Your task to perform on an android device: Go to calendar. Show me events next week Image 0: 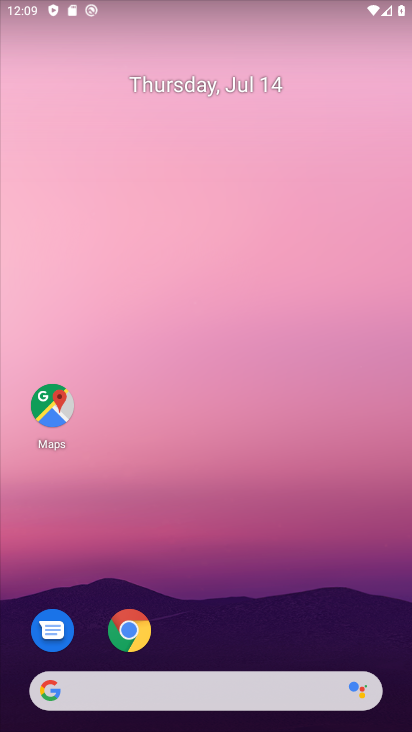
Step 0: drag from (190, 589) to (188, 402)
Your task to perform on an android device: Go to calendar. Show me events next week Image 1: 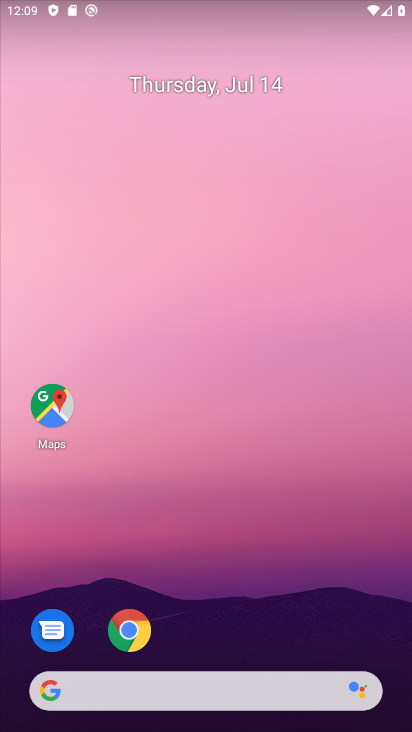
Step 1: drag from (236, 669) to (258, 281)
Your task to perform on an android device: Go to calendar. Show me events next week Image 2: 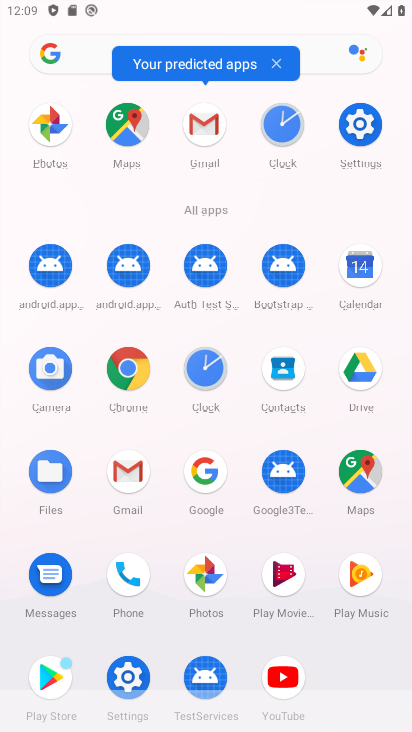
Step 2: click (360, 273)
Your task to perform on an android device: Go to calendar. Show me events next week Image 3: 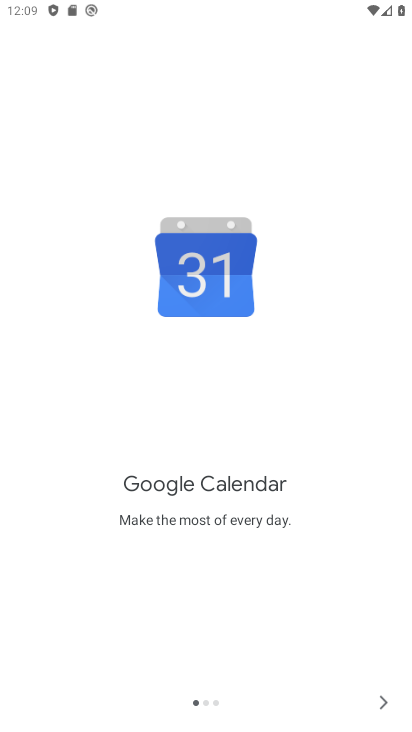
Step 3: click (385, 704)
Your task to perform on an android device: Go to calendar. Show me events next week Image 4: 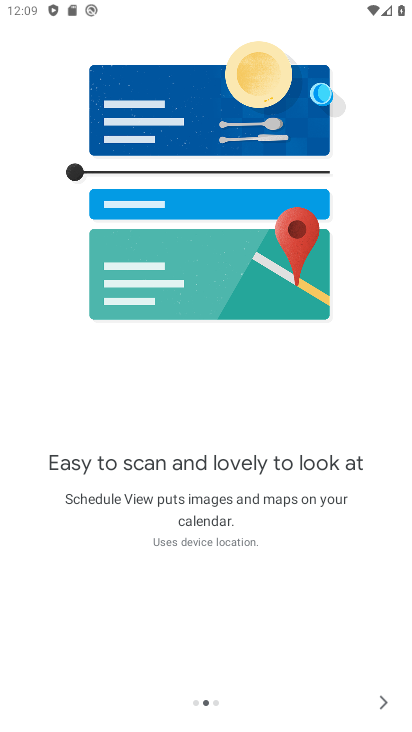
Step 4: click (385, 704)
Your task to perform on an android device: Go to calendar. Show me events next week Image 5: 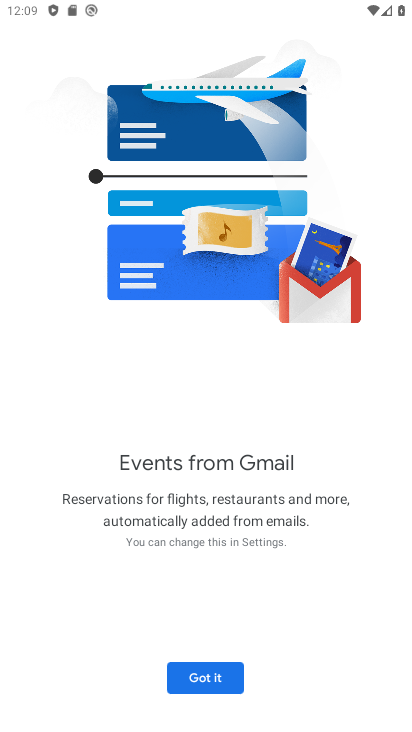
Step 5: click (195, 684)
Your task to perform on an android device: Go to calendar. Show me events next week Image 6: 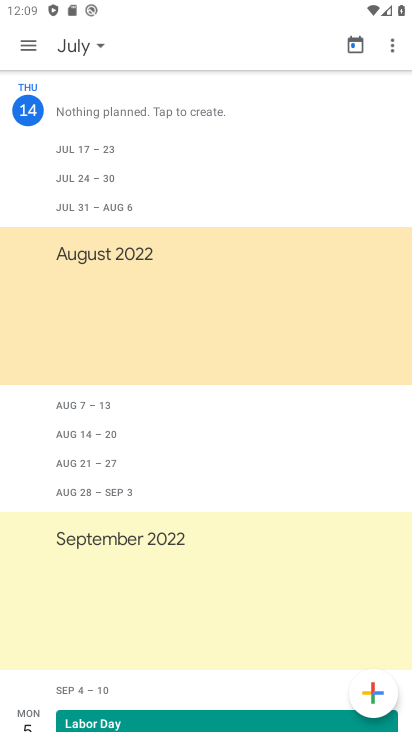
Step 6: click (82, 43)
Your task to perform on an android device: Go to calendar. Show me events next week Image 7: 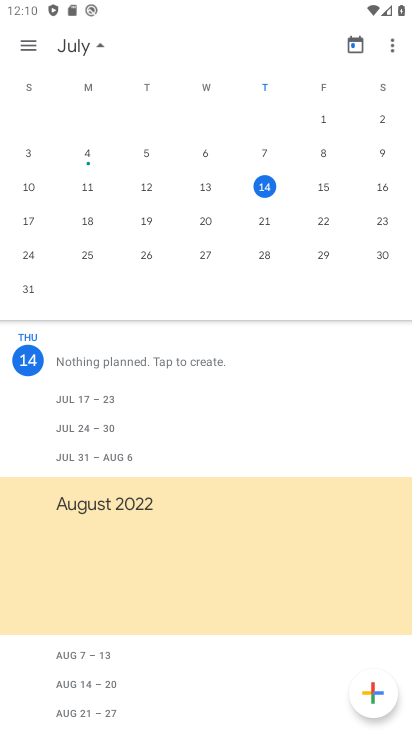
Step 7: click (86, 217)
Your task to perform on an android device: Go to calendar. Show me events next week Image 8: 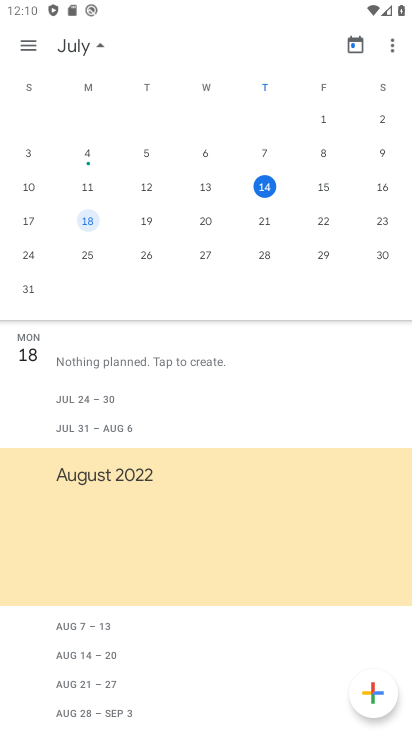
Step 8: click (41, 30)
Your task to perform on an android device: Go to calendar. Show me events next week Image 9: 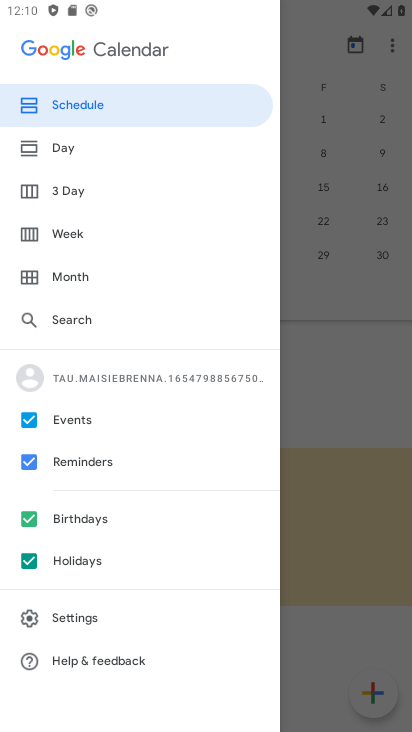
Step 9: click (75, 113)
Your task to perform on an android device: Go to calendar. Show me events next week Image 10: 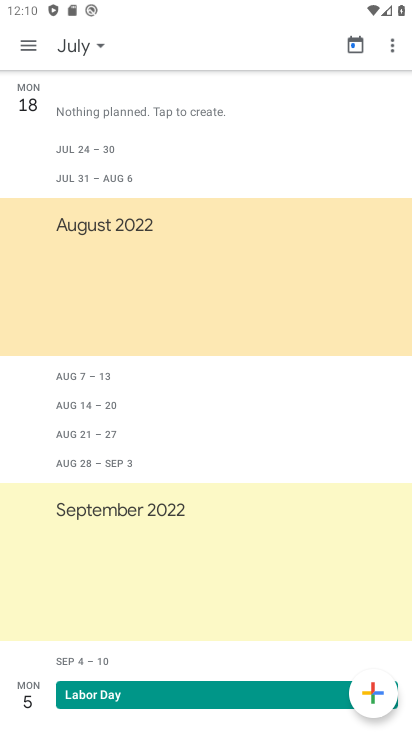
Step 10: task complete